Your task to perform on an android device: turn off wifi Image 0: 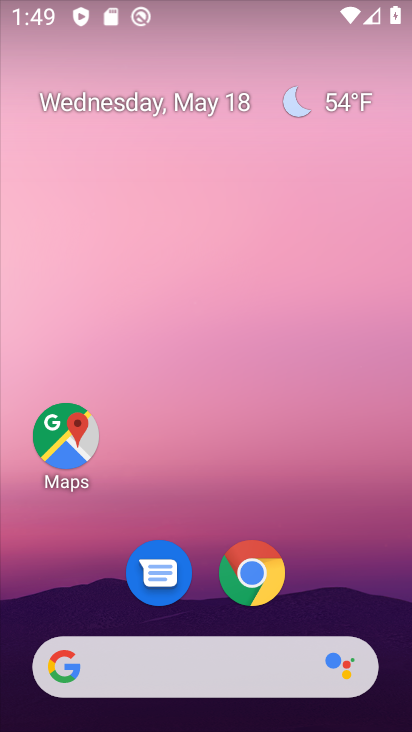
Step 0: drag from (240, 655) to (263, 81)
Your task to perform on an android device: turn off wifi Image 1: 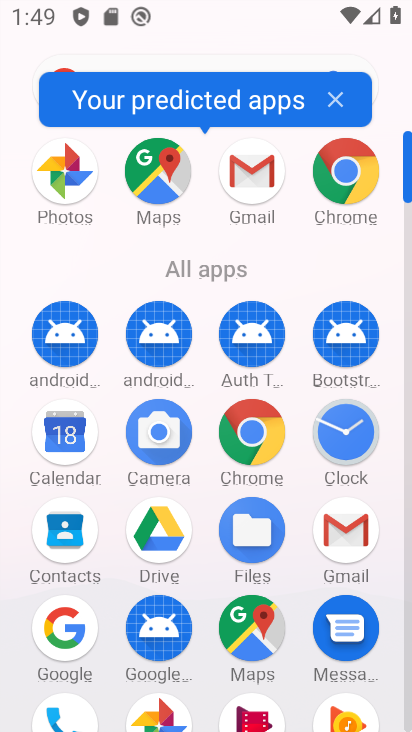
Step 1: drag from (201, 586) to (222, 101)
Your task to perform on an android device: turn off wifi Image 2: 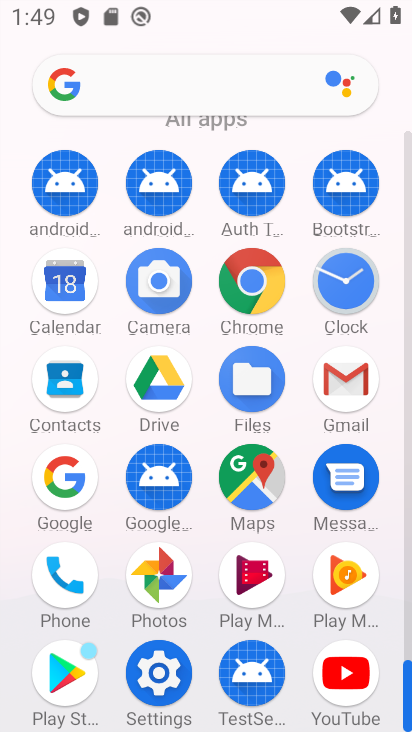
Step 2: click (156, 653)
Your task to perform on an android device: turn off wifi Image 3: 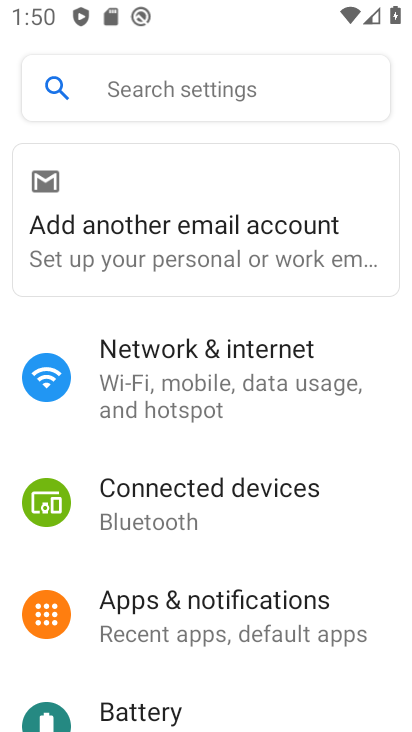
Step 3: click (240, 359)
Your task to perform on an android device: turn off wifi Image 4: 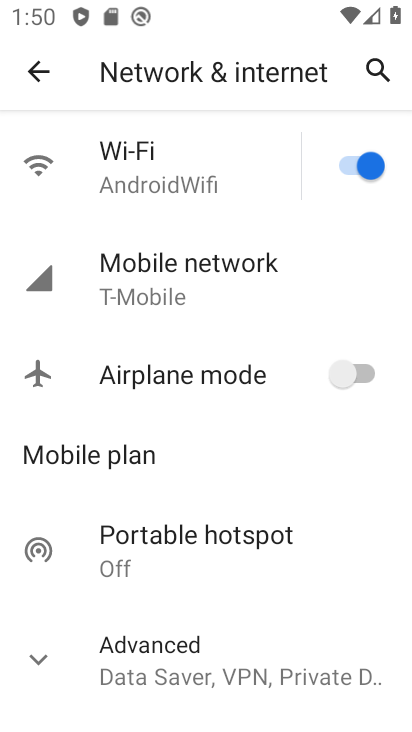
Step 4: click (365, 162)
Your task to perform on an android device: turn off wifi Image 5: 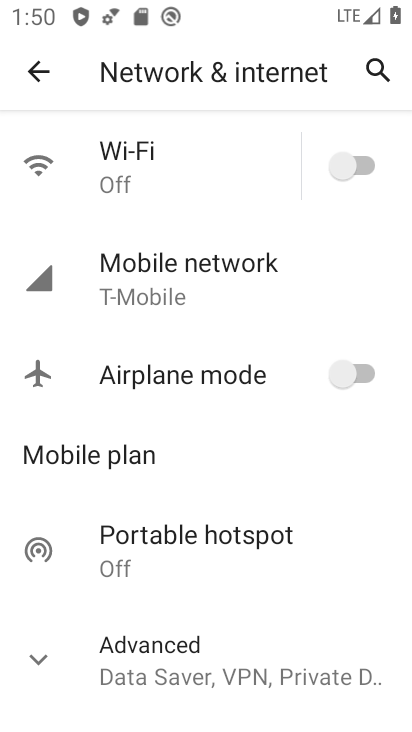
Step 5: task complete